Your task to perform on an android device: open the mobile data screen to see how much data has been used Image 0: 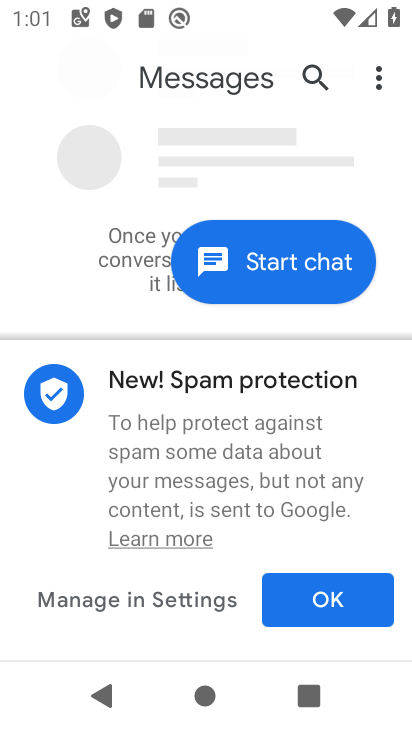
Step 0: click (328, 603)
Your task to perform on an android device: open the mobile data screen to see how much data has been used Image 1: 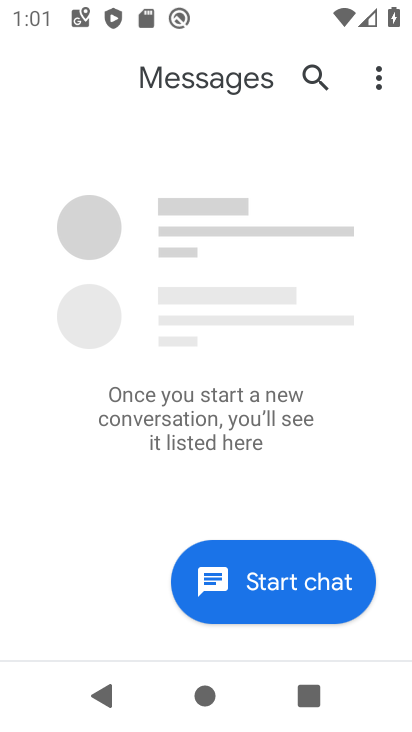
Step 1: press home button
Your task to perform on an android device: open the mobile data screen to see how much data has been used Image 2: 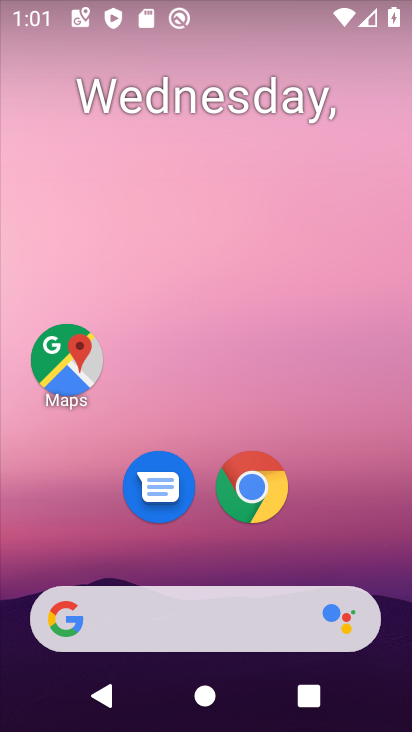
Step 2: drag from (207, 560) to (259, 127)
Your task to perform on an android device: open the mobile data screen to see how much data has been used Image 3: 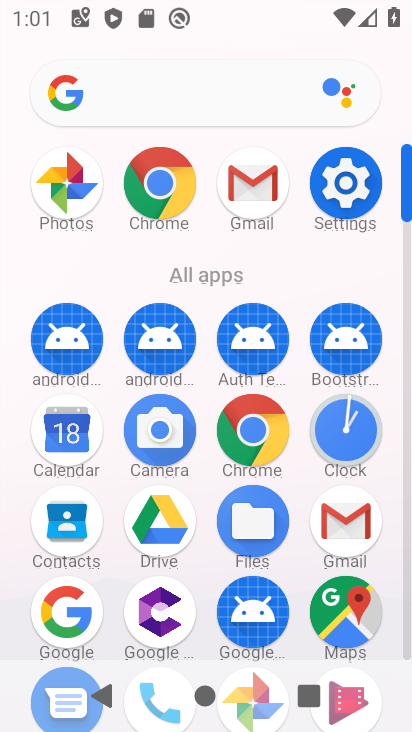
Step 3: drag from (240, 546) to (292, 177)
Your task to perform on an android device: open the mobile data screen to see how much data has been used Image 4: 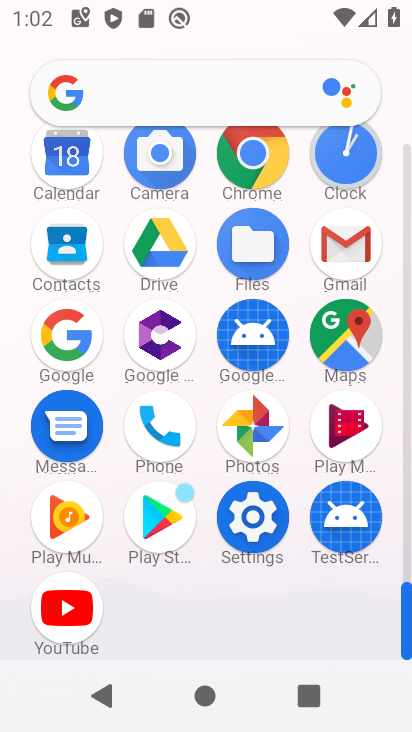
Step 4: click (269, 518)
Your task to perform on an android device: open the mobile data screen to see how much data has been used Image 5: 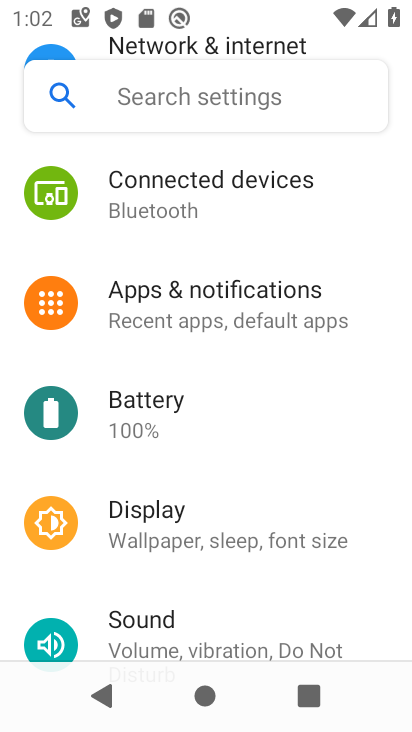
Step 5: drag from (238, 247) to (249, 576)
Your task to perform on an android device: open the mobile data screen to see how much data has been used Image 6: 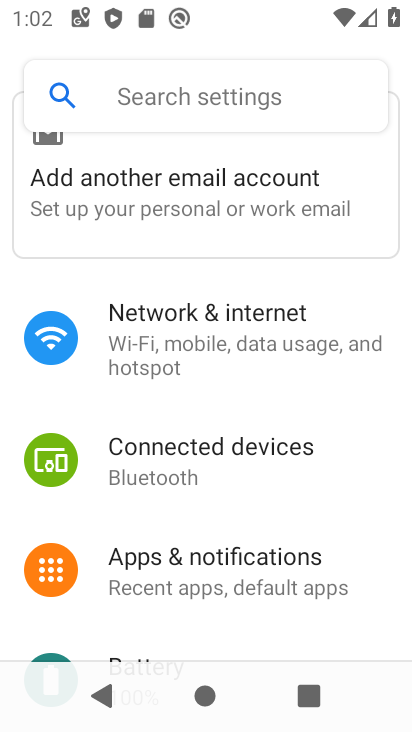
Step 6: click (223, 330)
Your task to perform on an android device: open the mobile data screen to see how much data has been used Image 7: 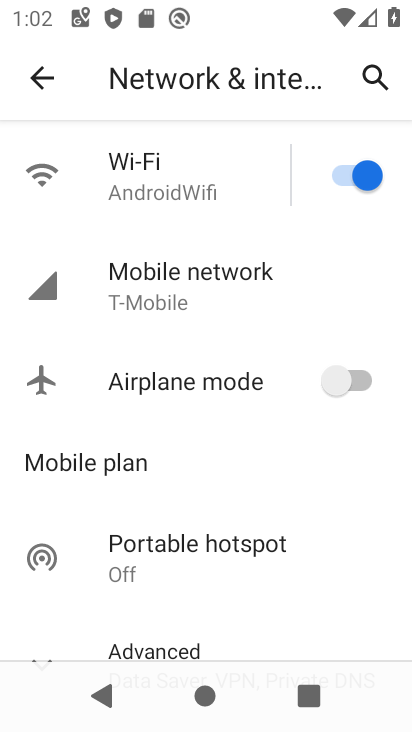
Step 7: click (230, 273)
Your task to perform on an android device: open the mobile data screen to see how much data has been used Image 8: 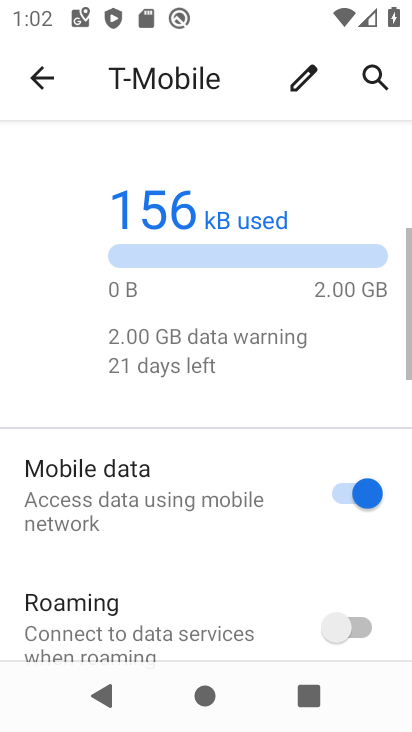
Step 8: drag from (243, 599) to (302, 232)
Your task to perform on an android device: open the mobile data screen to see how much data has been used Image 9: 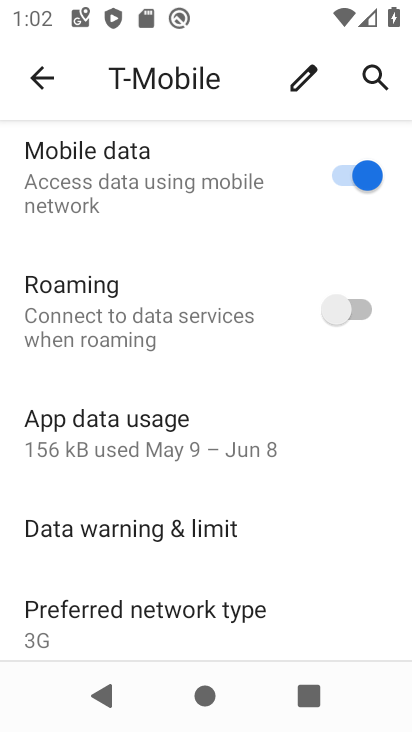
Step 9: click (139, 432)
Your task to perform on an android device: open the mobile data screen to see how much data has been used Image 10: 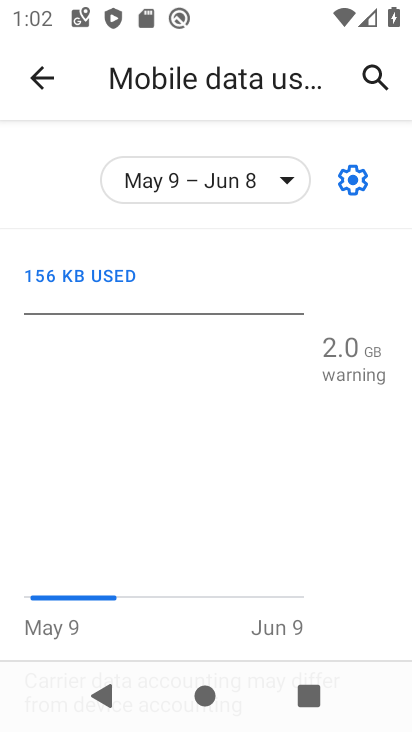
Step 10: task complete